Your task to perform on an android device: turn on priority inbox in the gmail app Image 0: 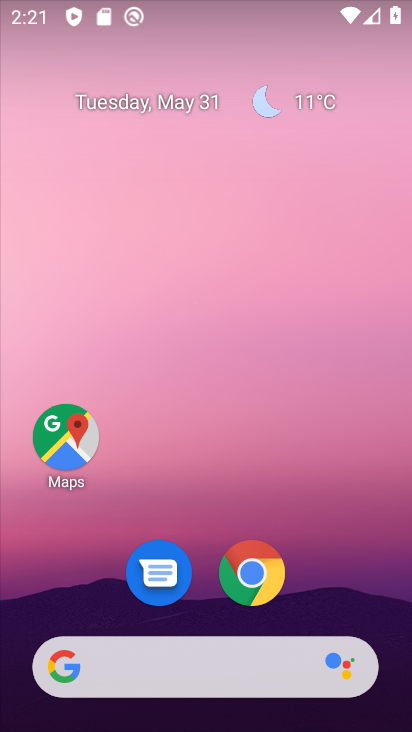
Step 0: drag from (350, 605) to (286, 78)
Your task to perform on an android device: turn on priority inbox in the gmail app Image 1: 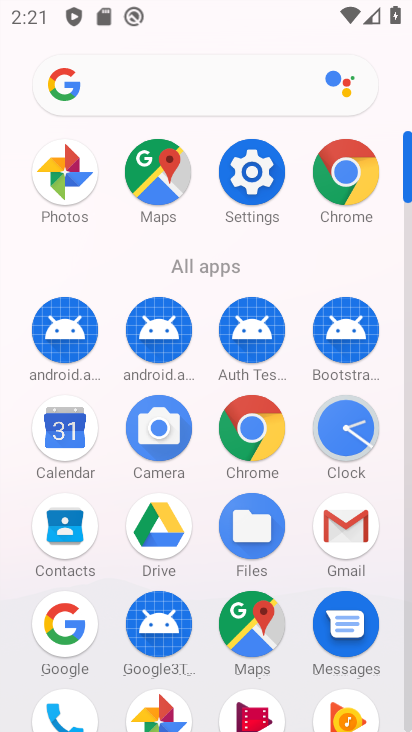
Step 1: click (353, 516)
Your task to perform on an android device: turn on priority inbox in the gmail app Image 2: 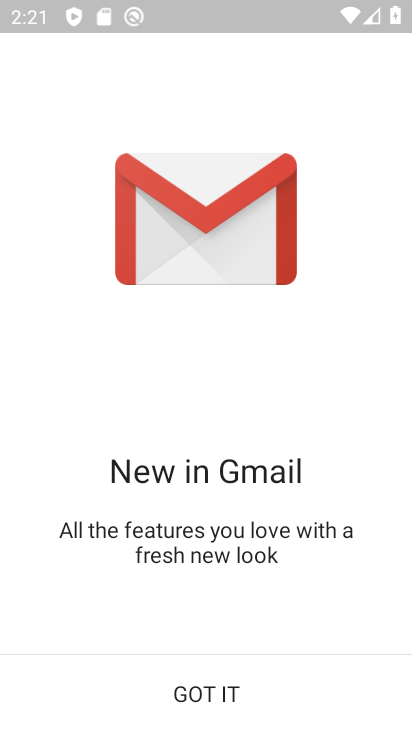
Step 2: click (207, 700)
Your task to perform on an android device: turn on priority inbox in the gmail app Image 3: 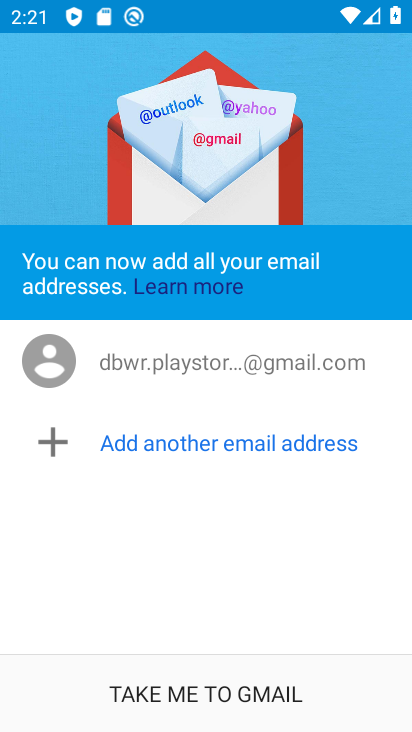
Step 3: click (207, 700)
Your task to perform on an android device: turn on priority inbox in the gmail app Image 4: 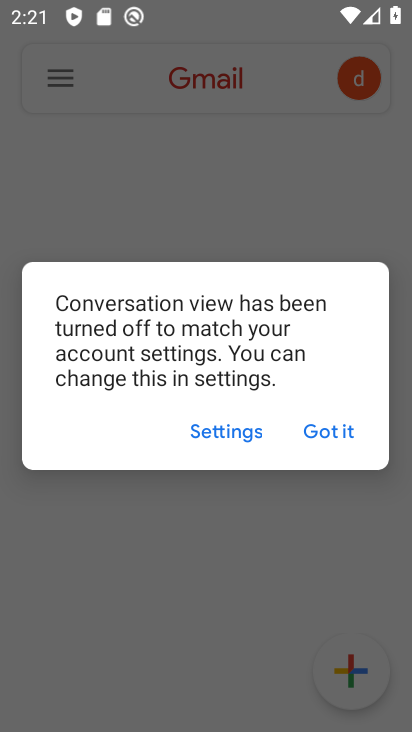
Step 4: click (350, 443)
Your task to perform on an android device: turn on priority inbox in the gmail app Image 5: 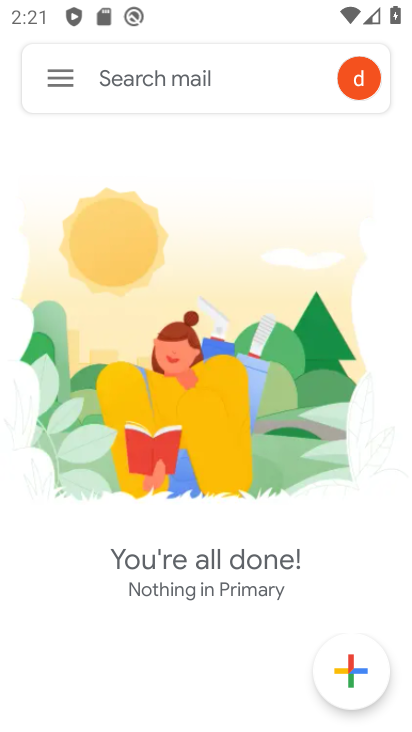
Step 5: click (59, 81)
Your task to perform on an android device: turn on priority inbox in the gmail app Image 6: 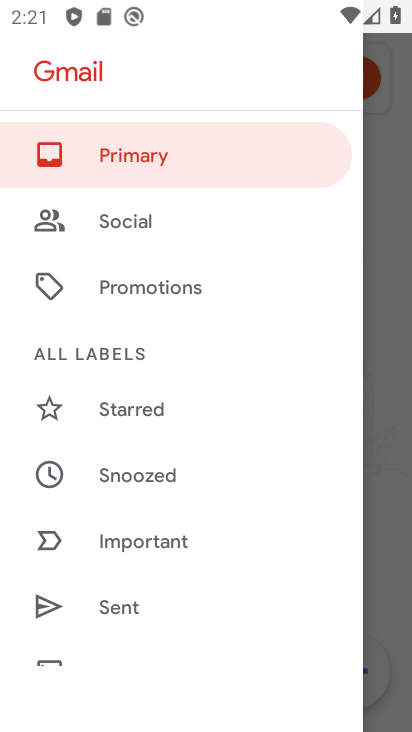
Step 6: drag from (155, 632) to (160, 206)
Your task to perform on an android device: turn on priority inbox in the gmail app Image 7: 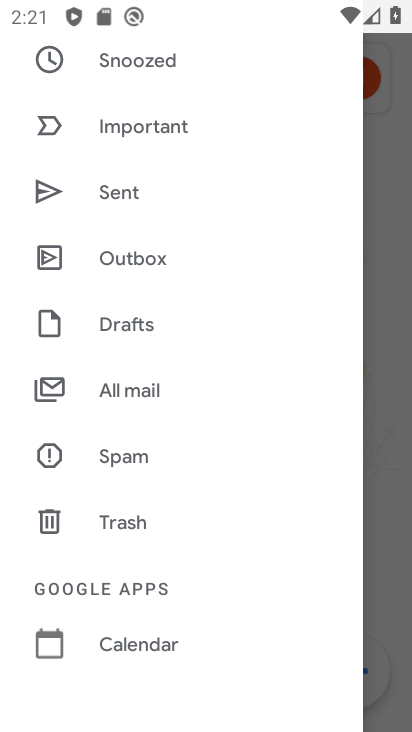
Step 7: drag from (172, 606) to (163, 242)
Your task to perform on an android device: turn on priority inbox in the gmail app Image 8: 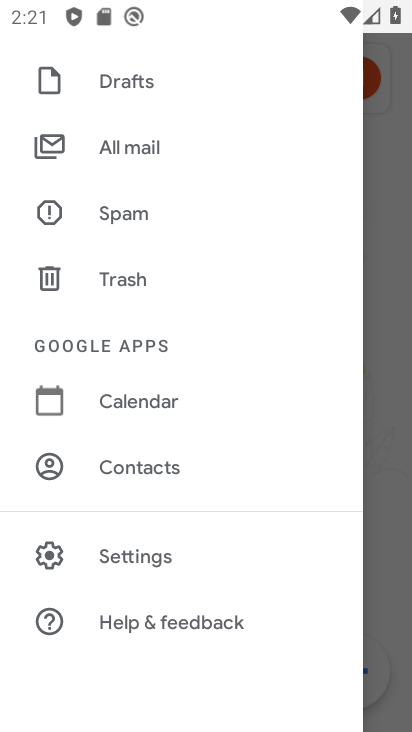
Step 8: click (139, 573)
Your task to perform on an android device: turn on priority inbox in the gmail app Image 9: 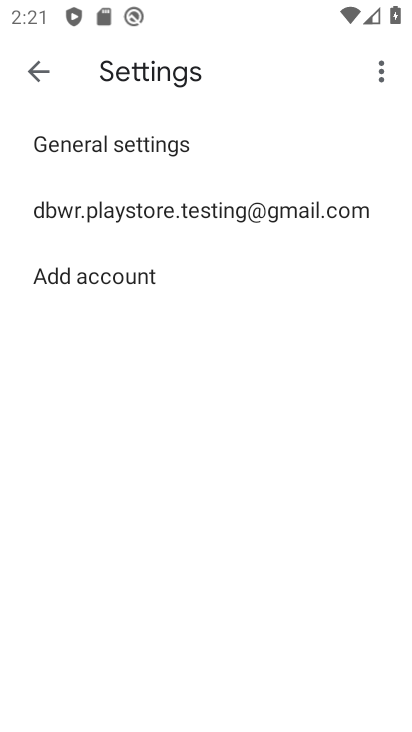
Step 9: click (163, 199)
Your task to perform on an android device: turn on priority inbox in the gmail app Image 10: 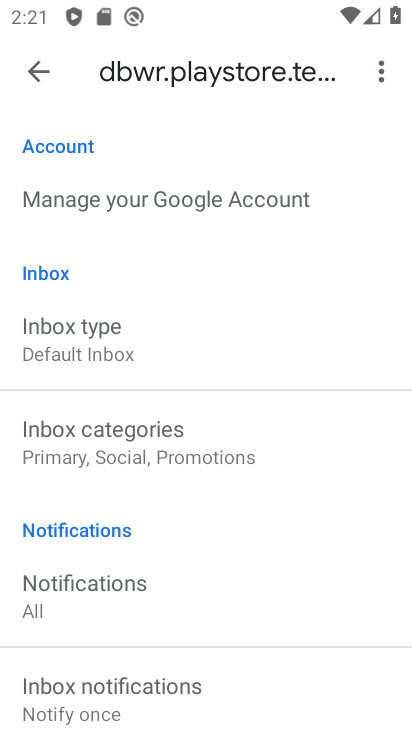
Step 10: click (144, 344)
Your task to perform on an android device: turn on priority inbox in the gmail app Image 11: 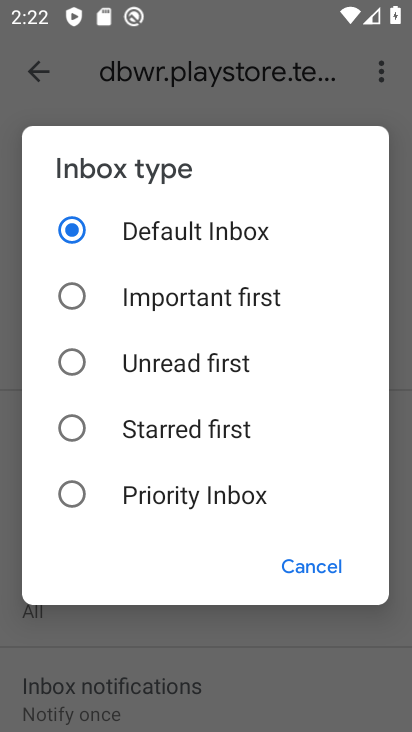
Step 11: click (160, 509)
Your task to perform on an android device: turn on priority inbox in the gmail app Image 12: 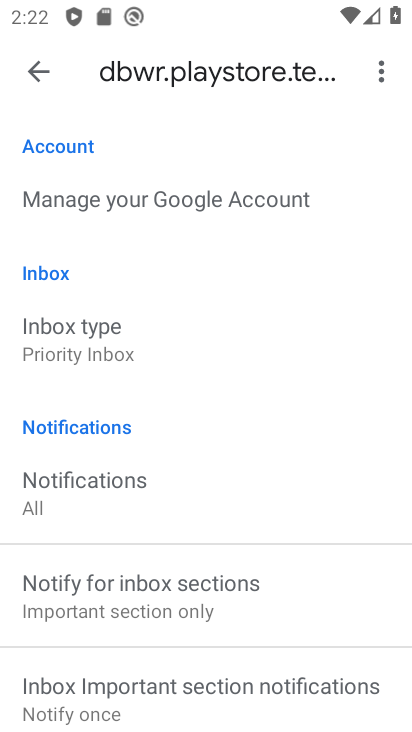
Step 12: task complete